Your task to perform on an android device: Search for hotels in Washington DC Image 0: 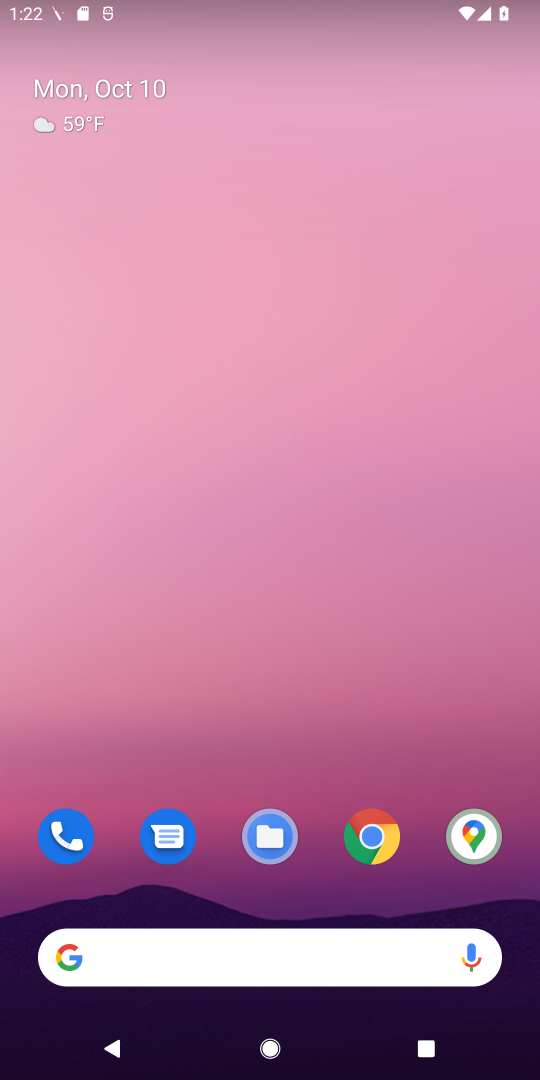
Step 0: click (401, 834)
Your task to perform on an android device: Search for hotels in Washington DC Image 1: 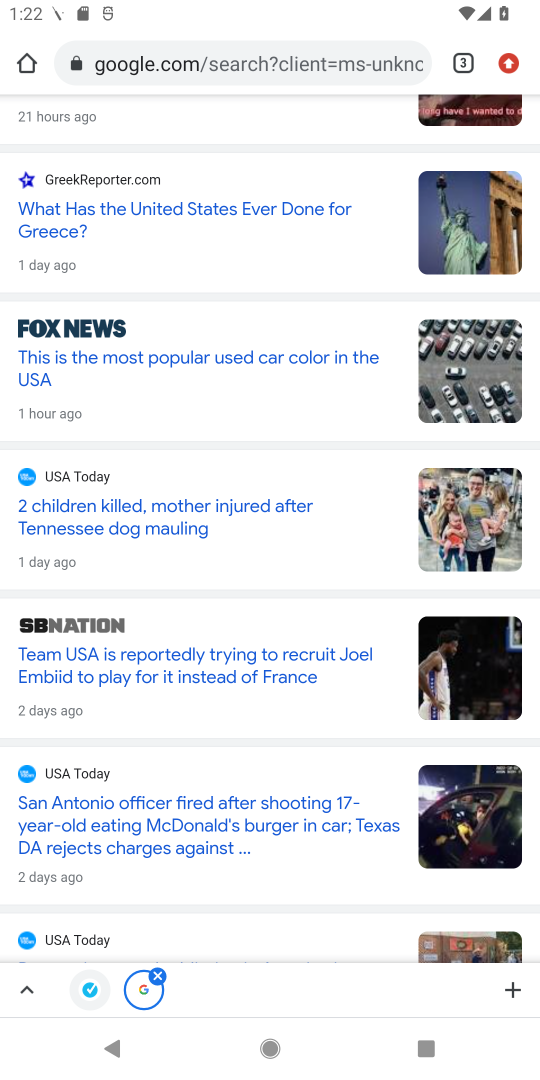
Step 1: click (357, 66)
Your task to perform on an android device: Search for hotels in Washington DC Image 2: 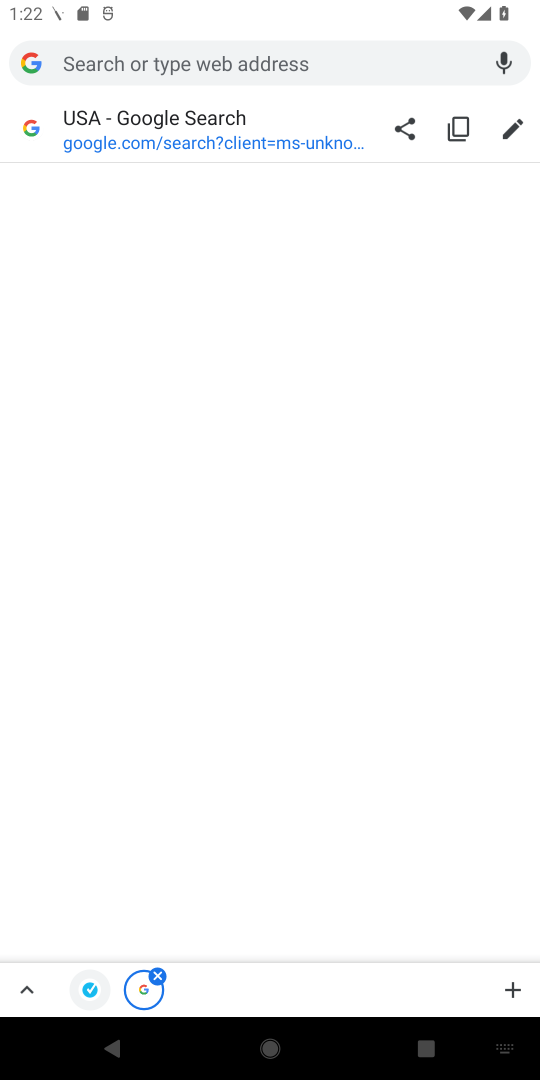
Step 2: type "hotels in Washington DC"
Your task to perform on an android device: Search for hotels in Washington DC Image 3: 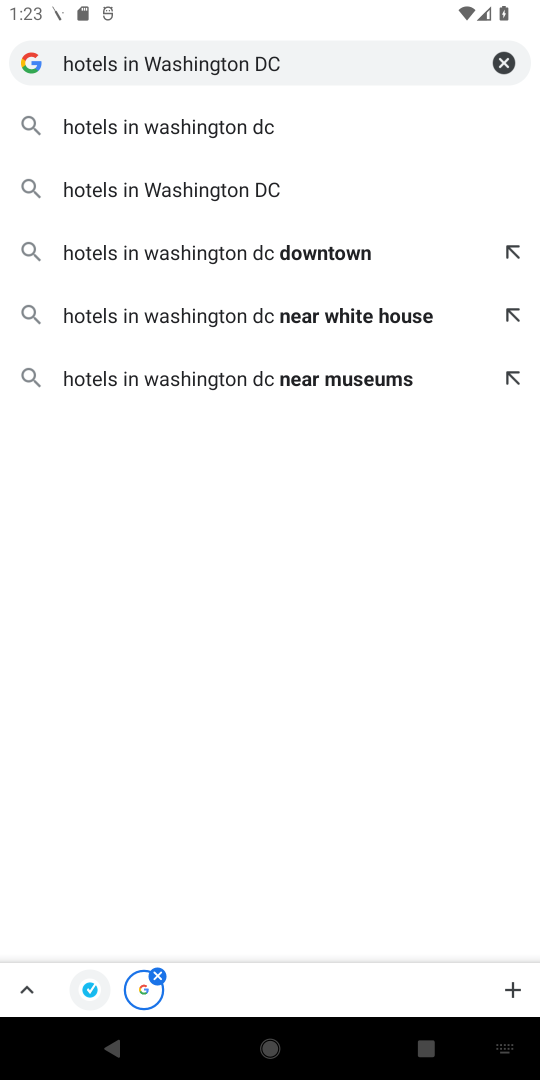
Step 3: click (335, 118)
Your task to perform on an android device: Search for hotels in Washington DC Image 4: 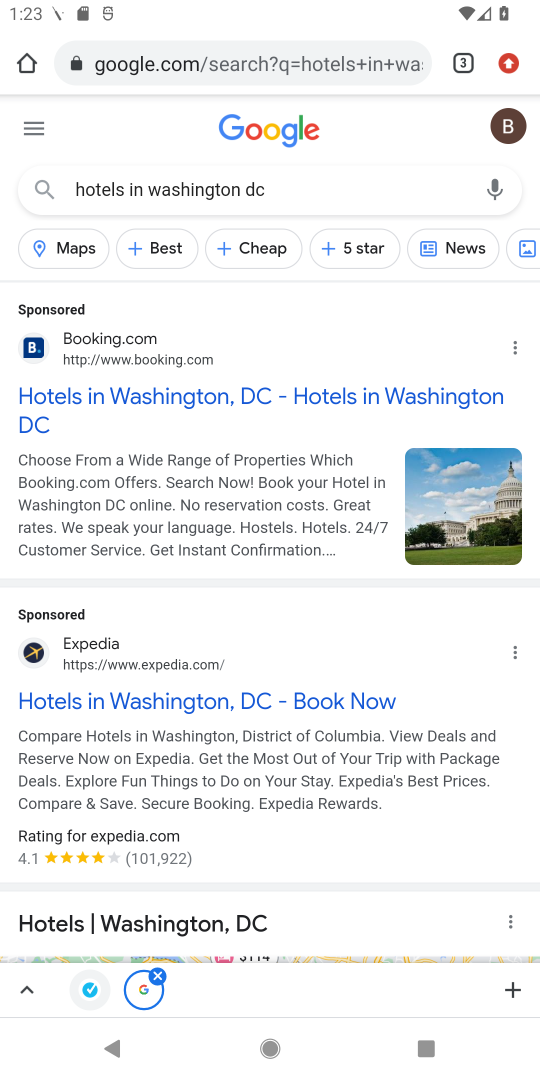
Step 4: task complete